Your task to perform on an android device: Open the phone app and click the voicemail tab. Image 0: 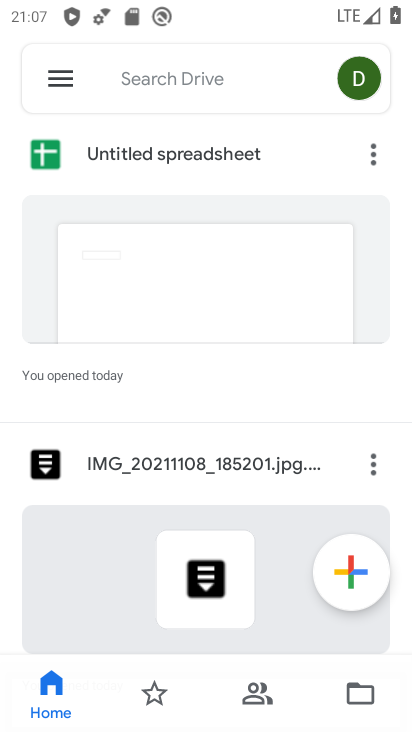
Step 0: press home button
Your task to perform on an android device: Open the phone app and click the voicemail tab. Image 1: 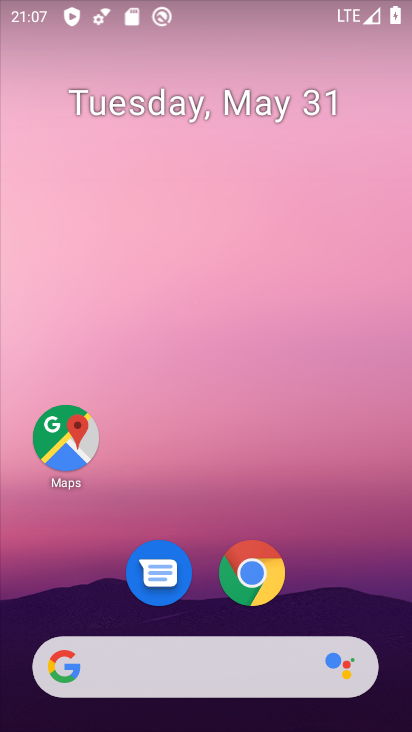
Step 1: drag from (332, 553) to (308, 151)
Your task to perform on an android device: Open the phone app and click the voicemail tab. Image 2: 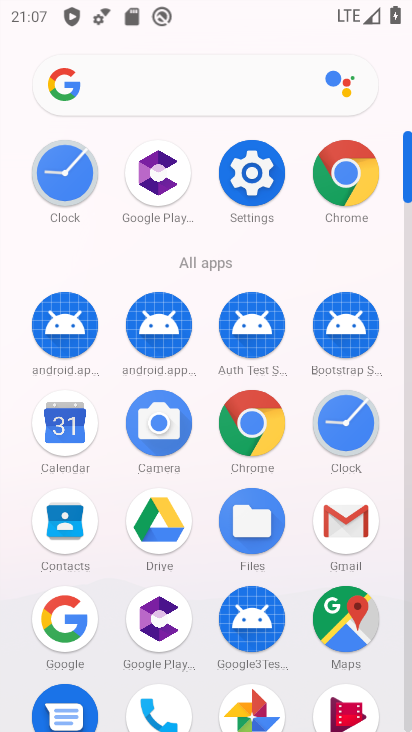
Step 2: drag from (221, 565) to (249, 294)
Your task to perform on an android device: Open the phone app and click the voicemail tab. Image 3: 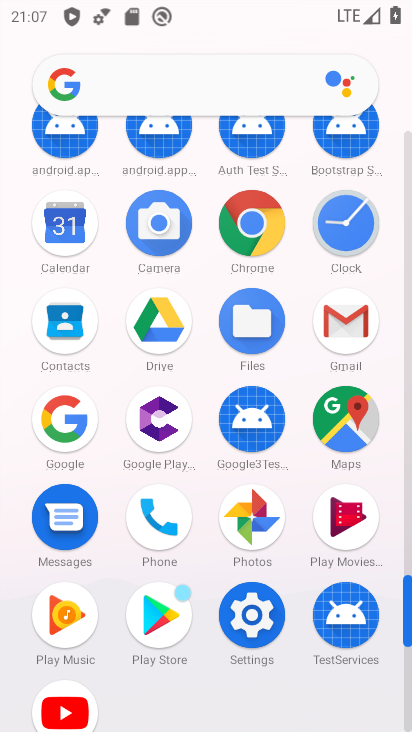
Step 3: click (166, 514)
Your task to perform on an android device: Open the phone app and click the voicemail tab. Image 4: 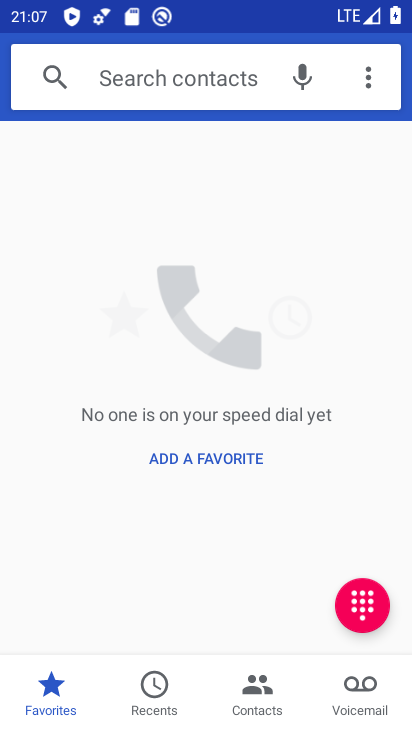
Step 4: click (365, 687)
Your task to perform on an android device: Open the phone app and click the voicemail tab. Image 5: 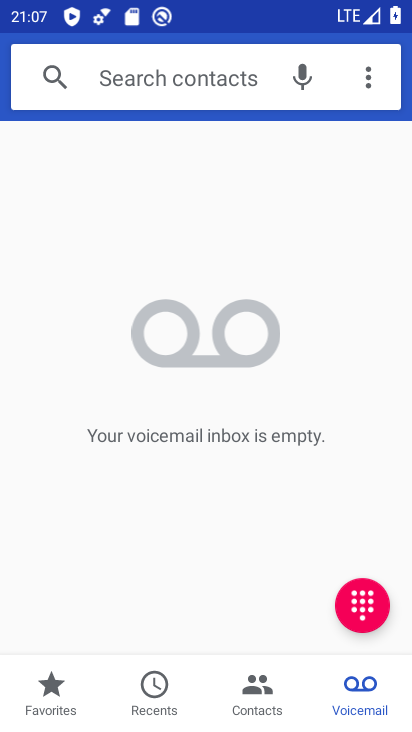
Step 5: task complete